Your task to perform on an android device: Go to Reddit.com Image 0: 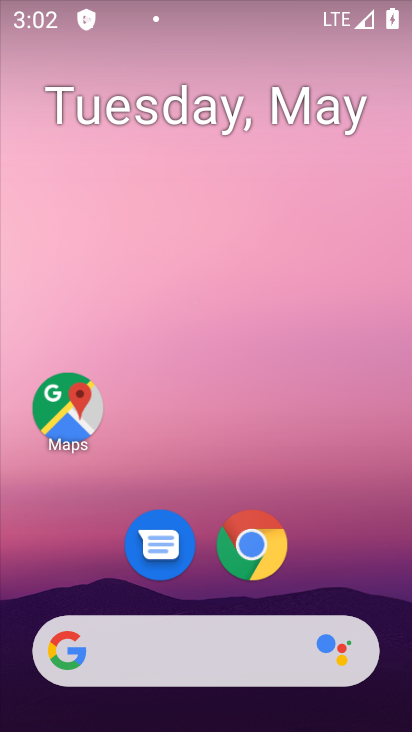
Step 0: click (270, 554)
Your task to perform on an android device: Go to Reddit.com Image 1: 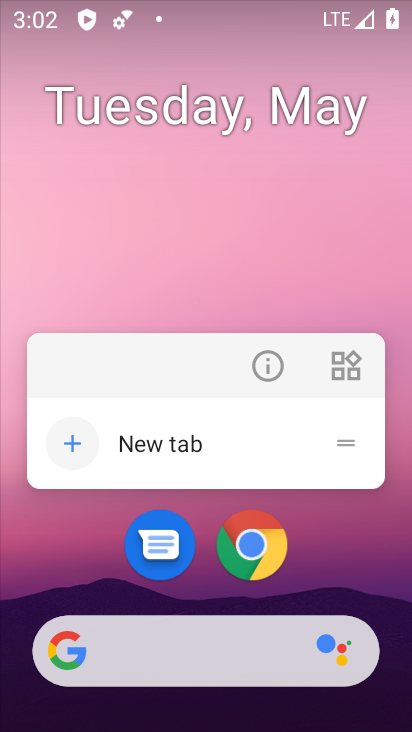
Step 1: click (260, 569)
Your task to perform on an android device: Go to Reddit.com Image 2: 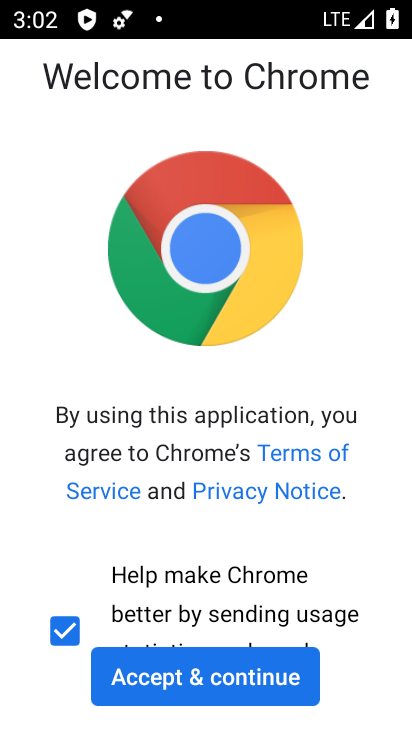
Step 2: click (207, 682)
Your task to perform on an android device: Go to Reddit.com Image 3: 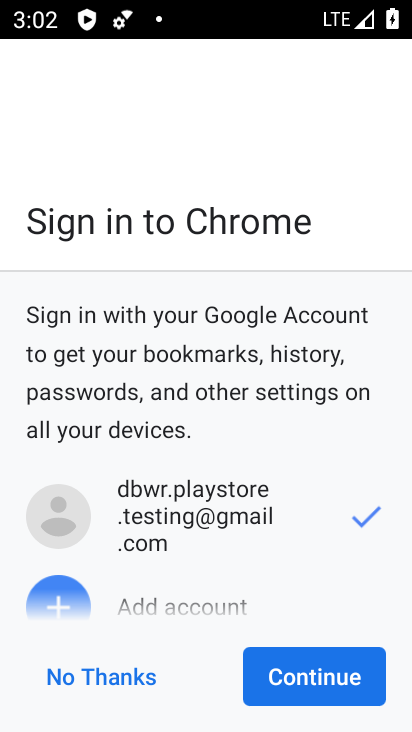
Step 3: click (322, 687)
Your task to perform on an android device: Go to Reddit.com Image 4: 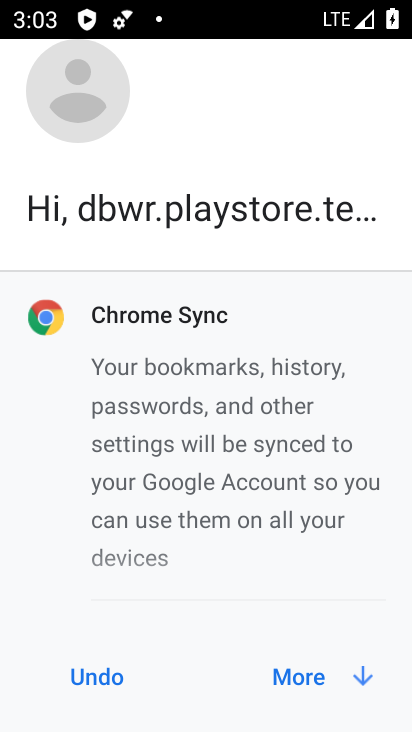
Step 4: click (301, 673)
Your task to perform on an android device: Go to Reddit.com Image 5: 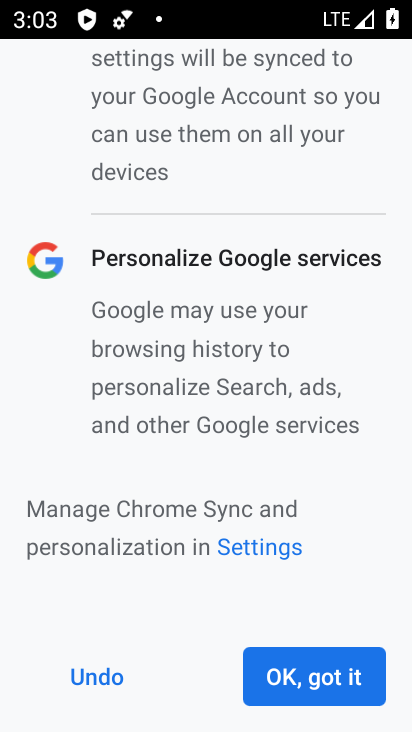
Step 5: click (318, 682)
Your task to perform on an android device: Go to Reddit.com Image 6: 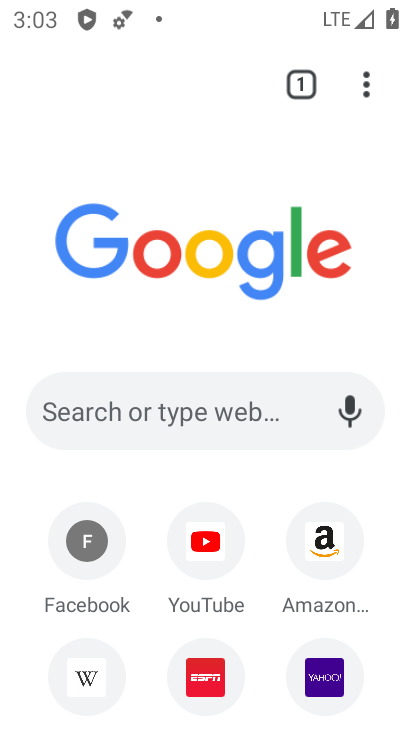
Step 6: click (157, 410)
Your task to perform on an android device: Go to Reddit.com Image 7: 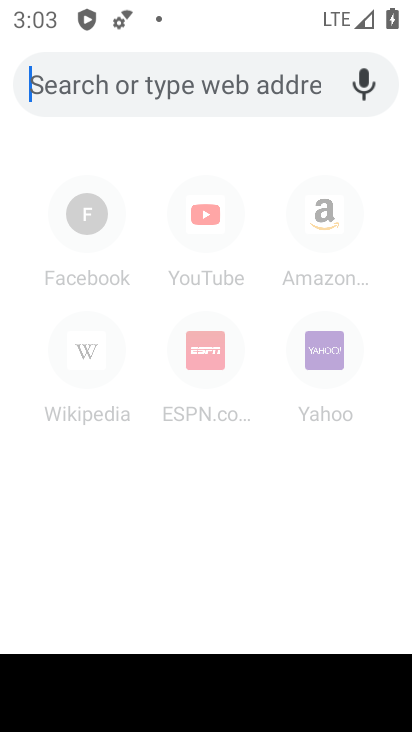
Step 7: type "reddit.com"
Your task to perform on an android device: Go to Reddit.com Image 8: 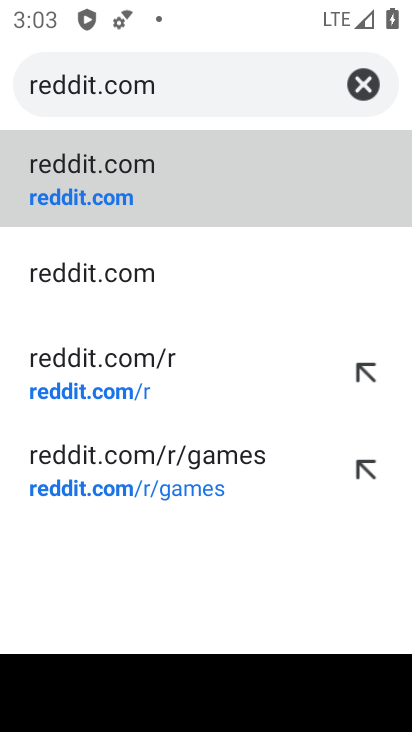
Step 8: click (169, 203)
Your task to perform on an android device: Go to Reddit.com Image 9: 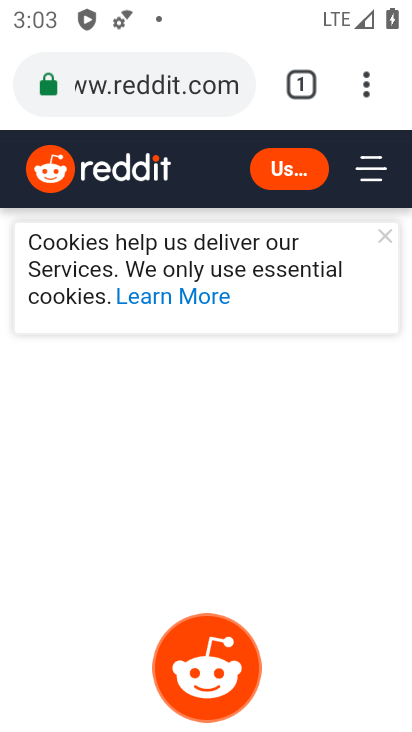
Step 9: task complete